Your task to perform on an android device: Open notification settings Image 0: 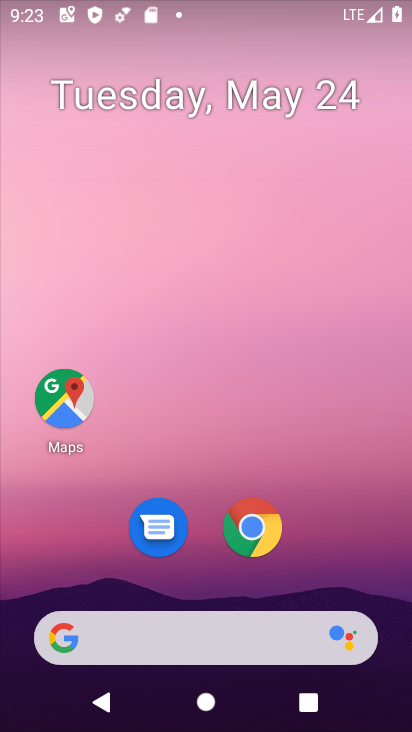
Step 0: drag from (190, 427) to (202, 67)
Your task to perform on an android device: Open notification settings Image 1: 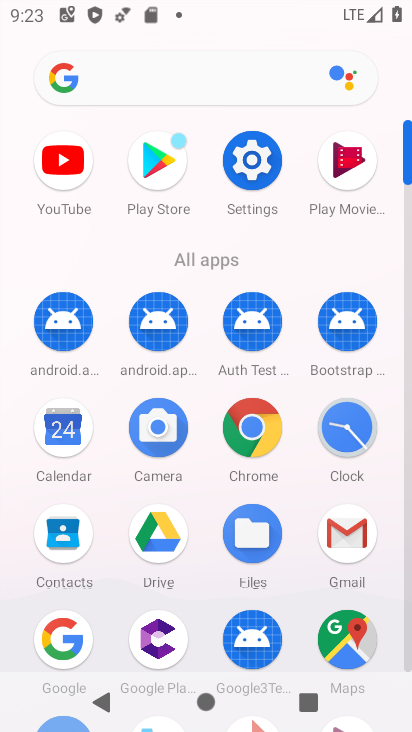
Step 1: click (251, 139)
Your task to perform on an android device: Open notification settings Image 2: 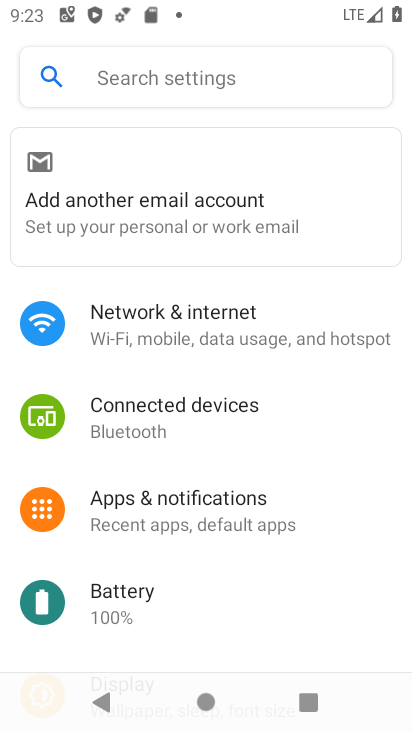
Step 2: click (199, 506)
Your task to perform on an android device: Open notification settings Image 3: 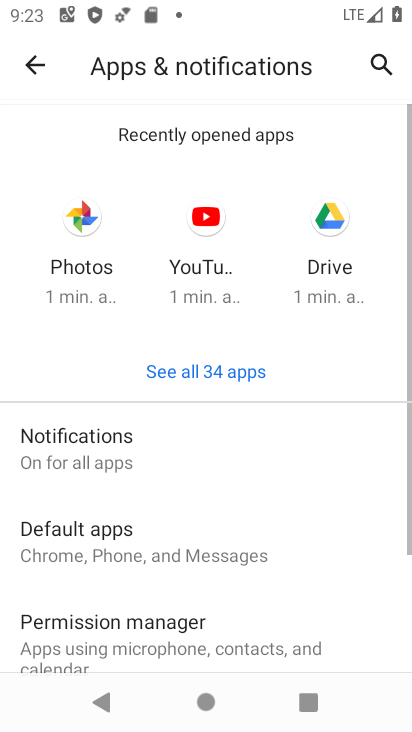
Step 3: click (174, 464)
Your task to perform on an android device: Open notification settings Image 4: 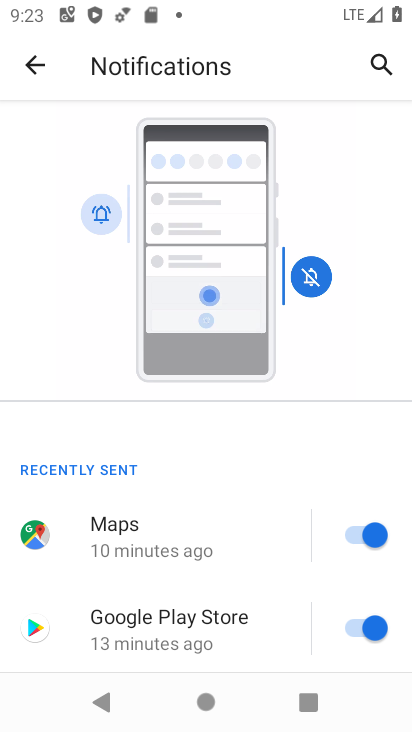
Step 4: task complete